Your task to perform on an android device: turn off improve location accuracy Image 0: 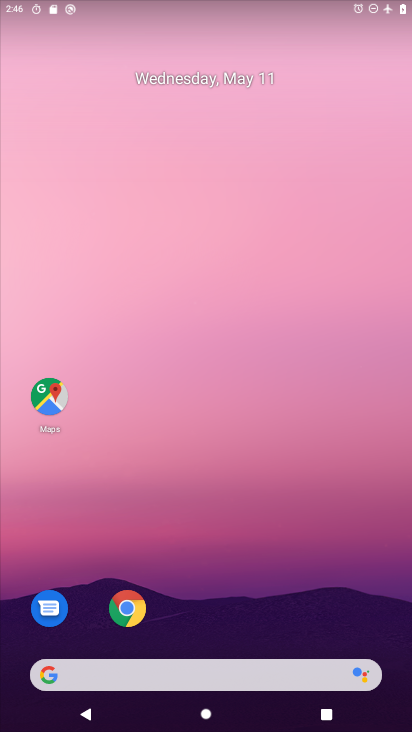
Step 0: drag from (202, 692) to (237, 159)
Your task to perform on an android device: turn off improve location accuracy Image 1: 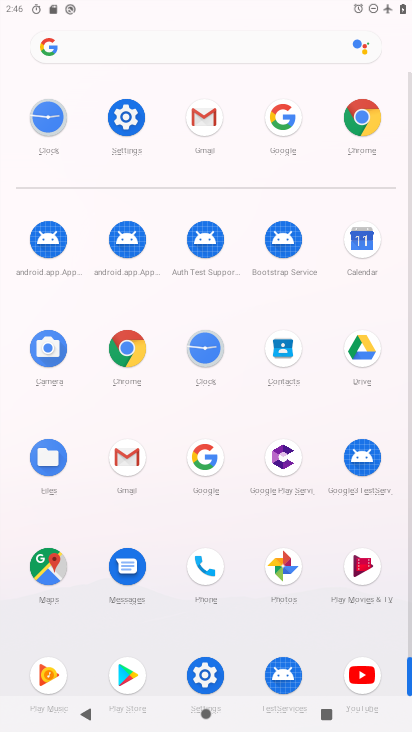
Step 1: click (139, 138)
Your task to perform on an android device: turn off improve location accuracy Image 2: 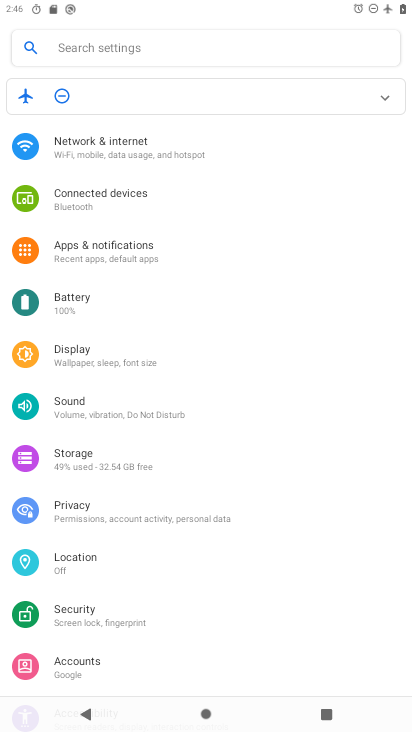
Step 2: click (236, 161)
Your task to perform on an android device: turn off improve location accuracy Image 3: 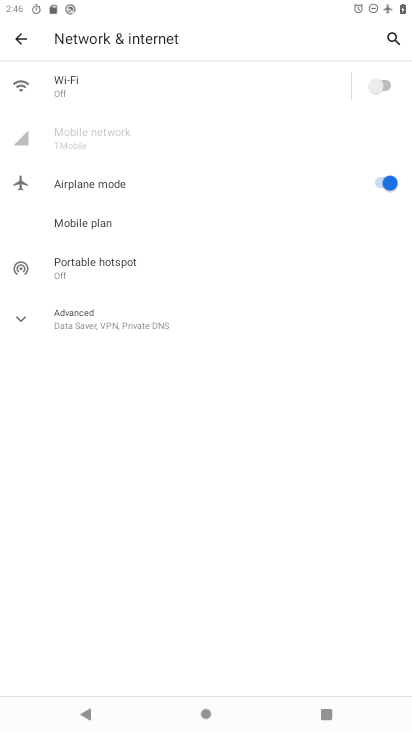
Step 3: click (23, 49)
Your task to perform on an android device: turn off improve location accuracy Image 4: 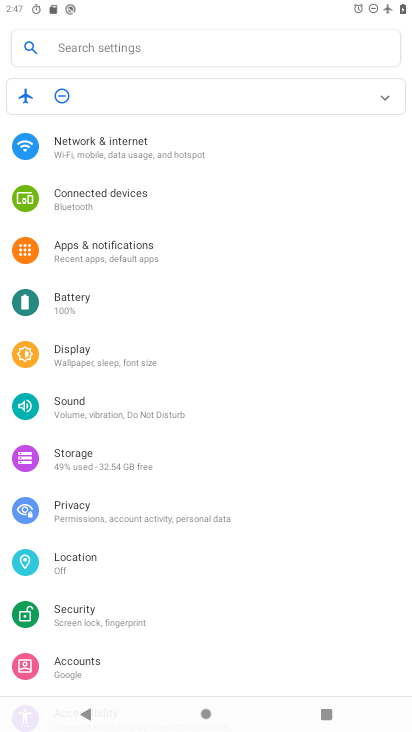
Step 4: drag from (176, 442) to (171, 162)
Your task to perform on an android device: turn off improve location accuracy Image 5: 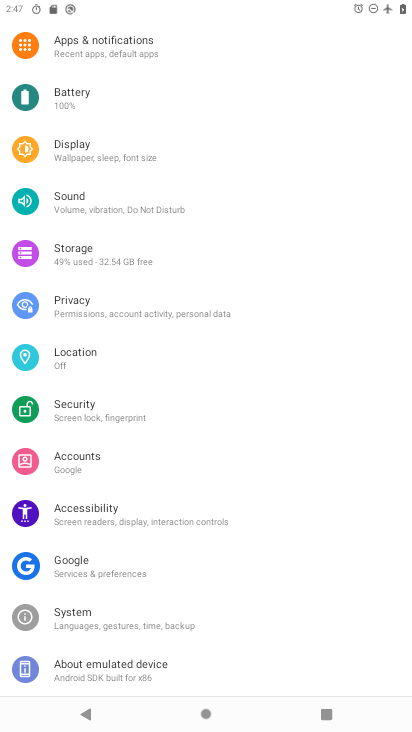
Step 5: click (107, 364)
Your task to perform on an android device: turn off improve location accuracy Image 6: 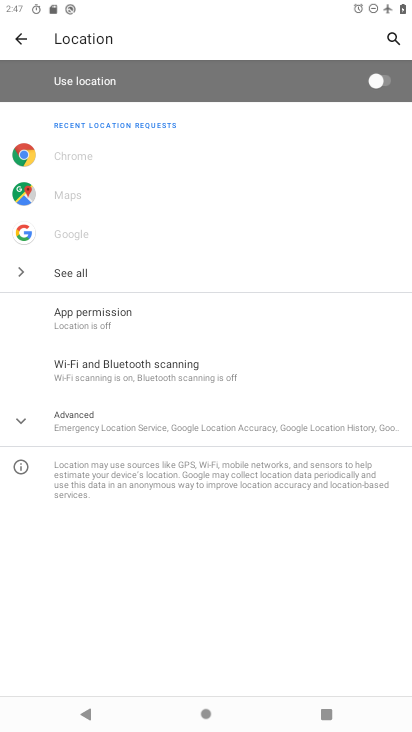
Step 6: click (73, 425)
Your task to perform on an android device: turn off improve location accuracy Image 7: 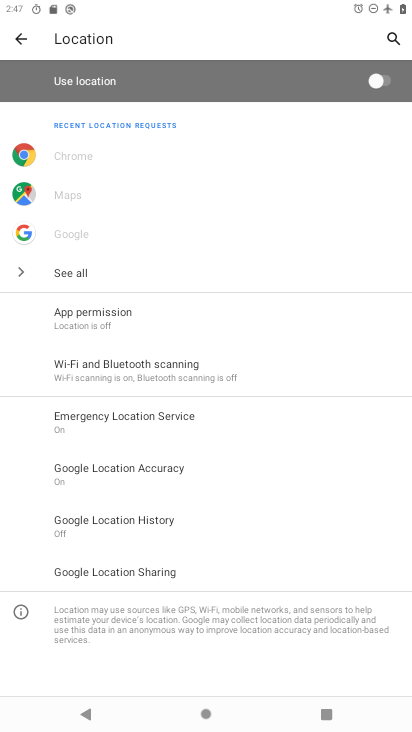
Step 7: click (158, 466)
Your task to perform on an android device: turn off improve location accuracy Image 8: 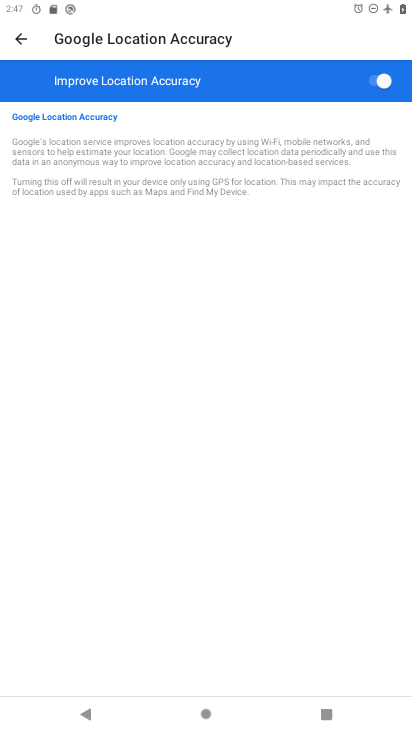
Step 8: click (358, 80)
Your task to perform on an android device: turn off improve location accuracy Image 9: 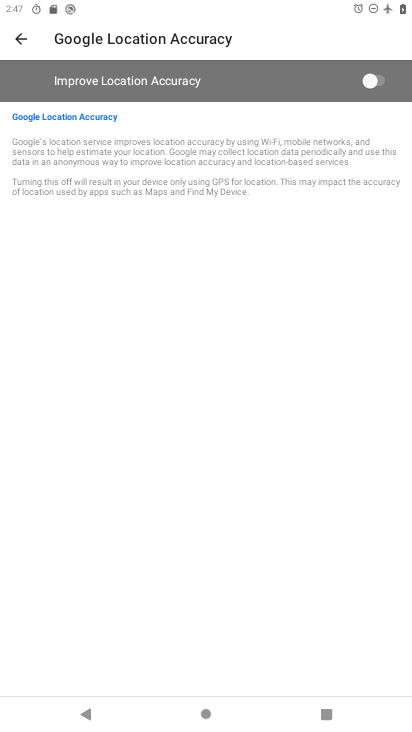
Step 9: task complete